Your task to perform on an android device: When is my next meeting? Image 0: 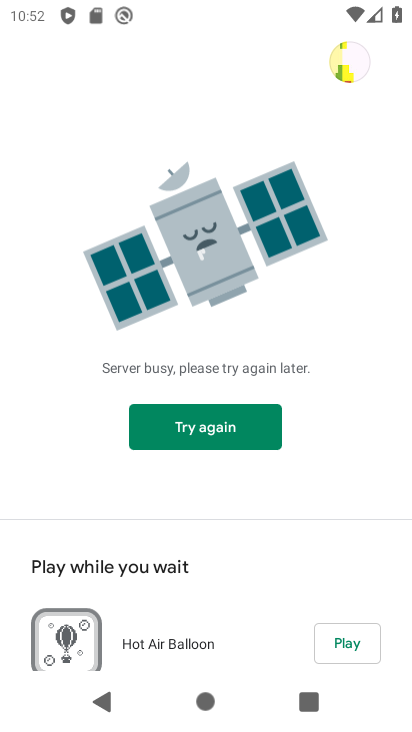
Step 0: press home button
Your task to perform on an android device: When is my next meeting? Image 1: 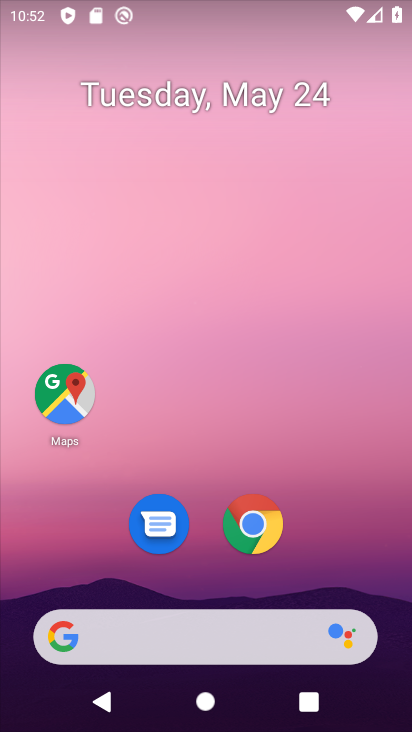
Step 1: drag from (221, 447) to (231, 32)
Your task to perform on an android device: When is my next meeting? Image 2: 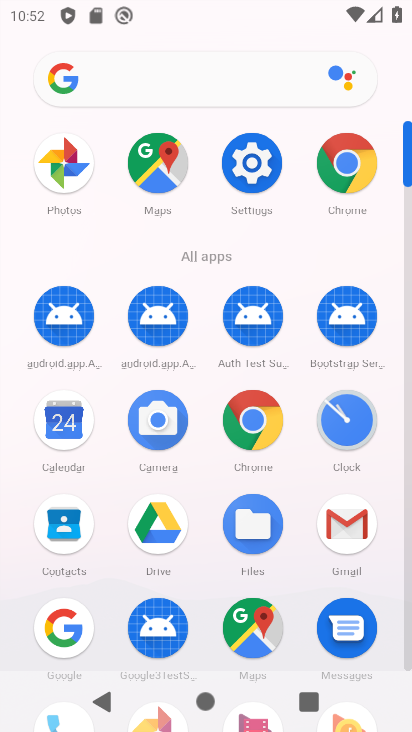
Step 2: click (62, 413)
Your task to perform on an android device: When is my next meeting? Image 3: 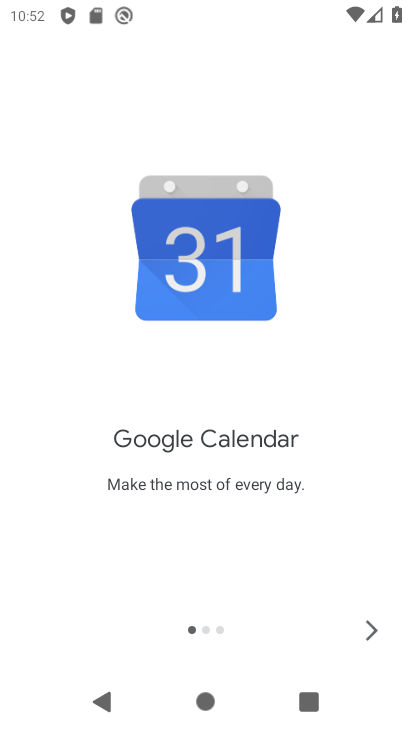
Step 3: click (370, 619)
Your task to perform on an android device: When is my next meeting? Image 4: 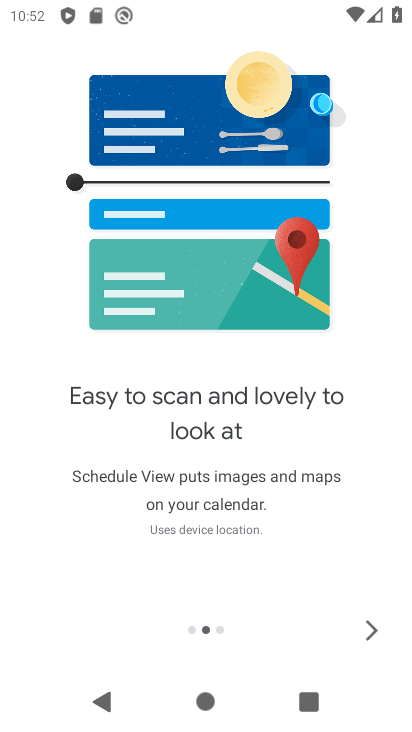
Step 4: click (367, 635)
Your task to perform on an android device: When is my next meeting? Image 5: 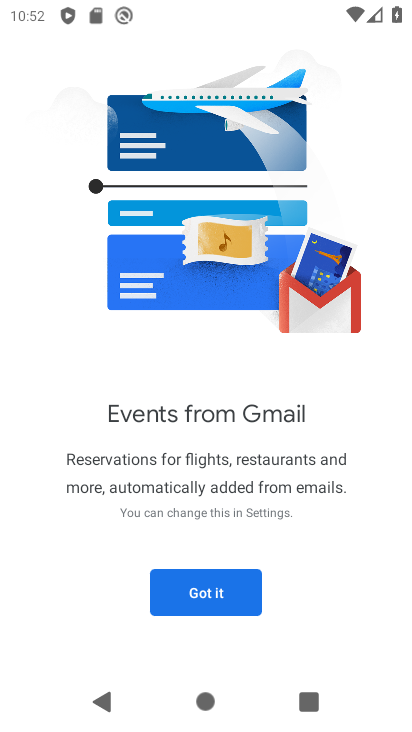
Step 5: click (226, 599)
Your task to perform on an android device: When is my next meeting? Image 6: 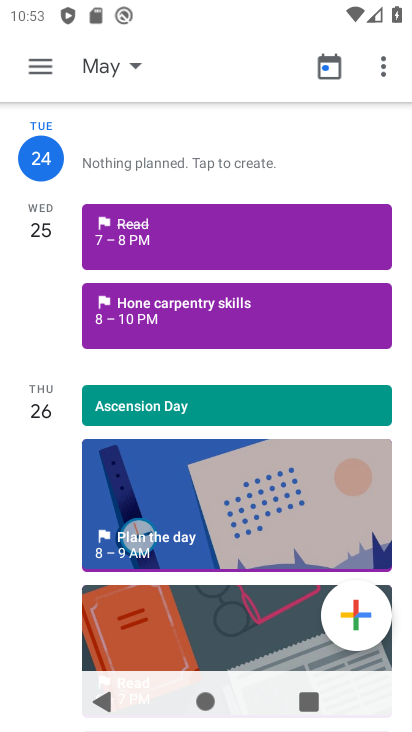
Step 6: task complete